Your task to perform on an android device: show emergency info Image 0: 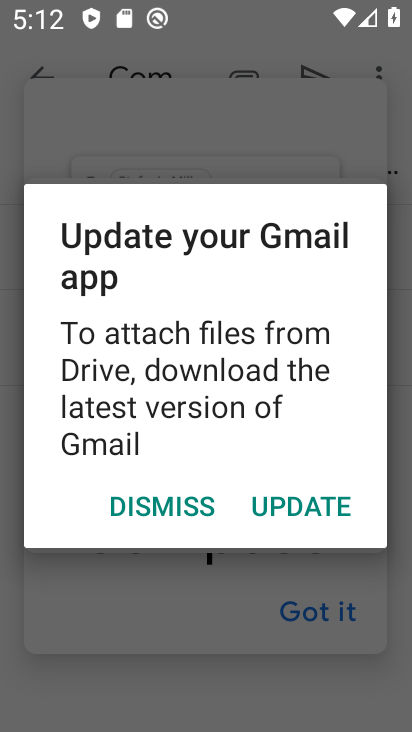
Step 0: press back button
Your task to perform on an android device: show emergency info Image 1: 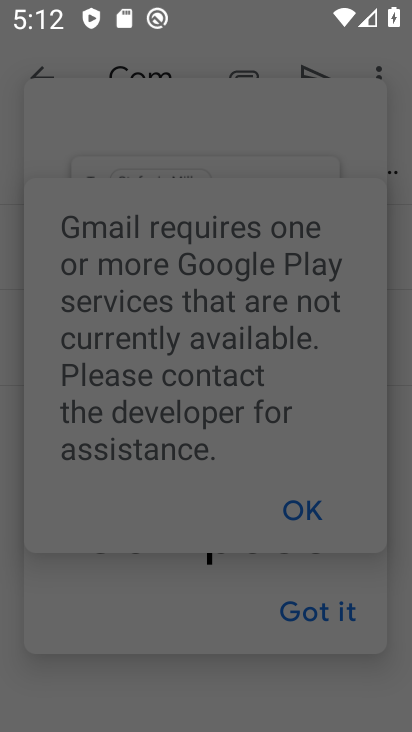
Step 1: press home button
Your task to perform on an android device: show emergency info Image 2: 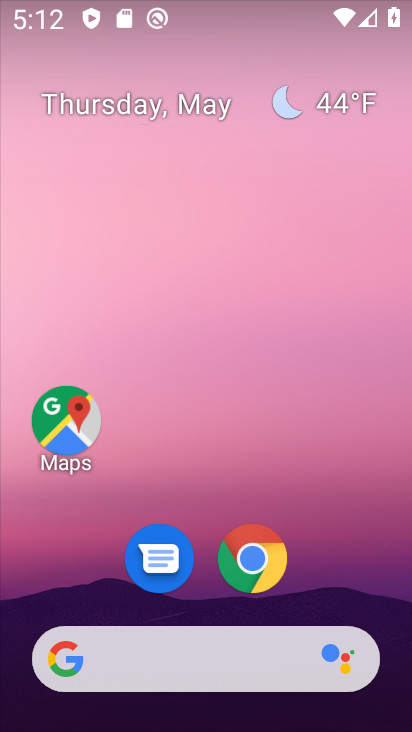
Step 2: drag from (307, 522) to (215, 1)
Your task to perform on an android device: show emergency info Image 3: 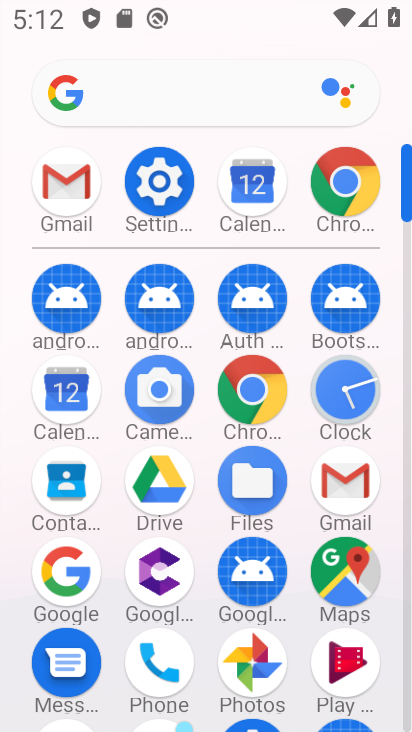
Step 3: click (161, 171)
Your task to perform on an android device: show emergency info Image 4: 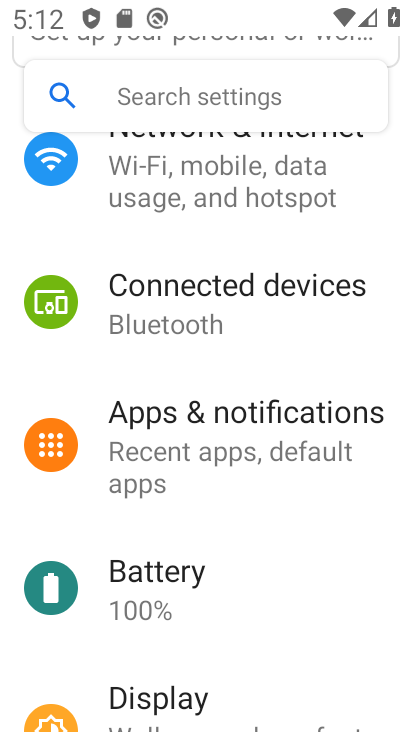
Step 4: drag from (174, 571) to (194, 139)
Your task to perform on an android device: show emergency info Image 5: 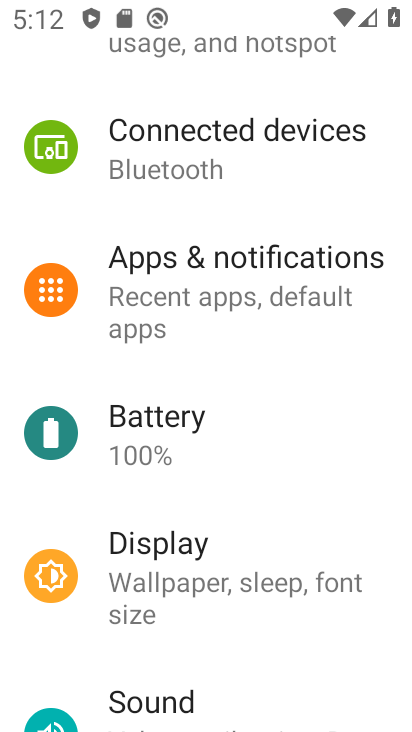
Step 5: drag from (224, 521) to (228, 239)
Your task to perform on an android device: show emergency info Image 6: 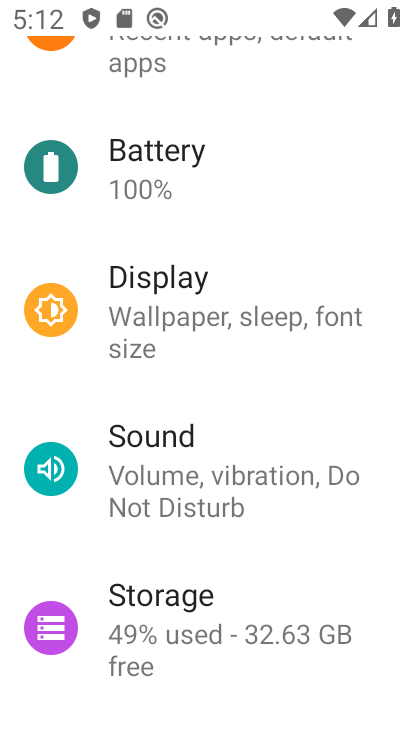
Step 6: drag from (227, 564) to (306, 52)
Your task to perform on an android device: show emergency info Image 7: 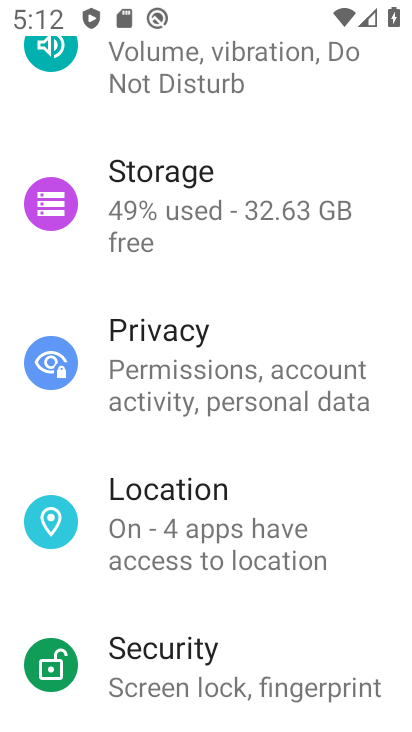
Step 7: drag from (228, 530) to (235, 67)
Your task to perform on an android device: show emergency info Image 8: 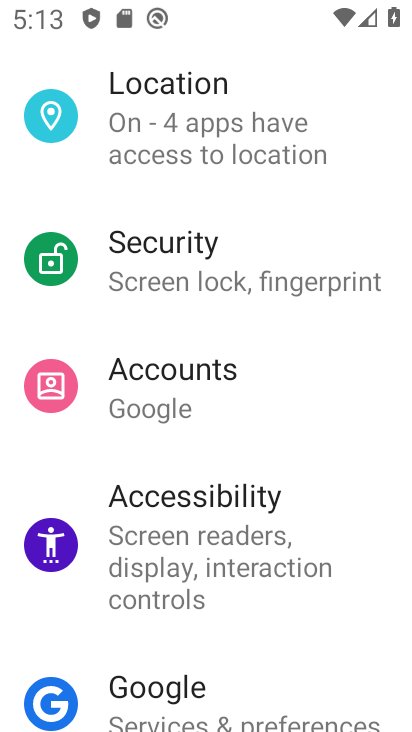
Step 8: drag from (266, 547) to (286, 132)
Your task to perform on an android device: show emergency info Image 9: 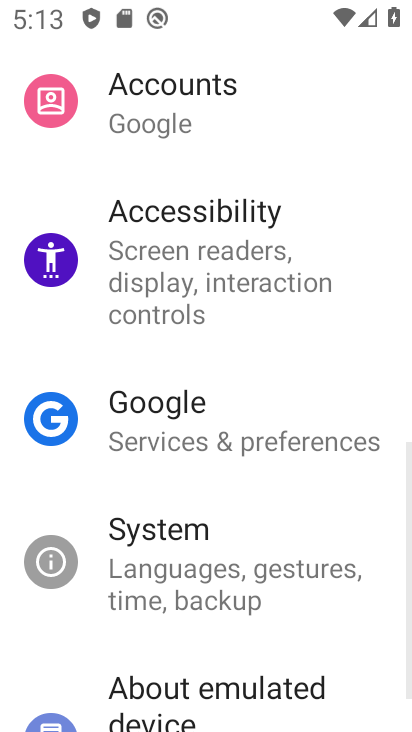
Step 9: drag from (288, 483) to (298, 110)
Your task to perform on an android device: show emergency info Image 10: 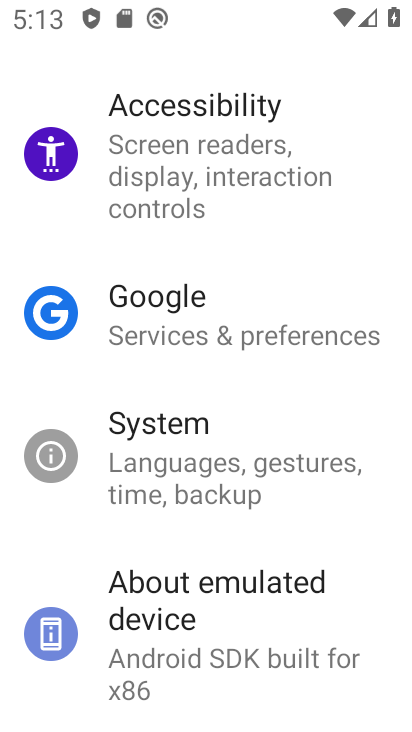
Step 10: drag from (294, 611) to (287, 148)
Your task to perform on an android device: show emergency info Image 11: 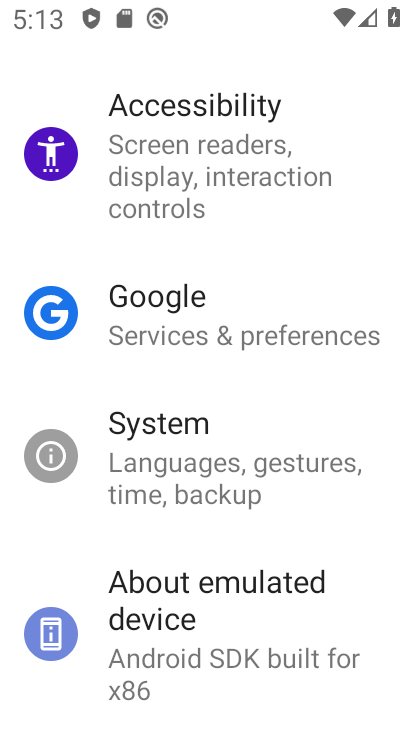
Step 11: drag from (274, 156) to (298, 609)
Your task to perform on an android device: show emergency info Image 12: 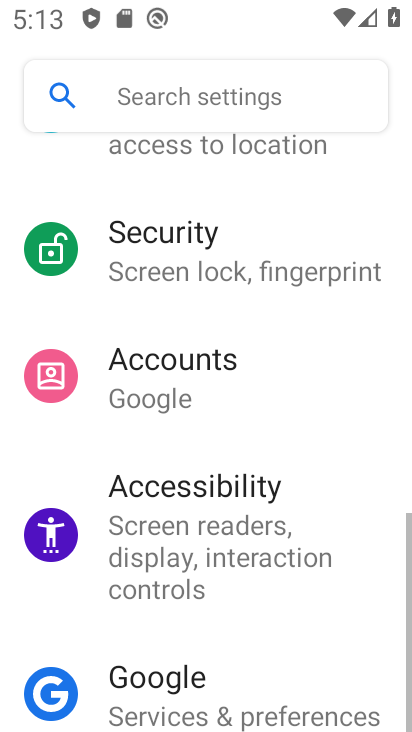
Step 12: drag from (298, 609) to (311, 109)
Your task to perform on an android device: show emergency info Image 13: 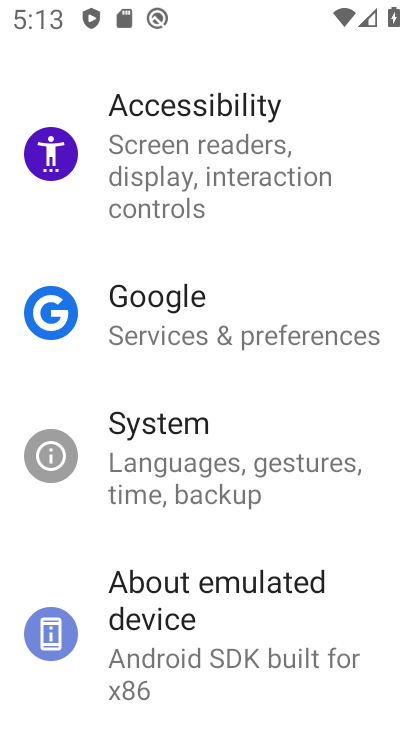
Step 13: drag from (305, 208) to (298, 353)
Your task to perform on an android device: show emergency info Image 14: 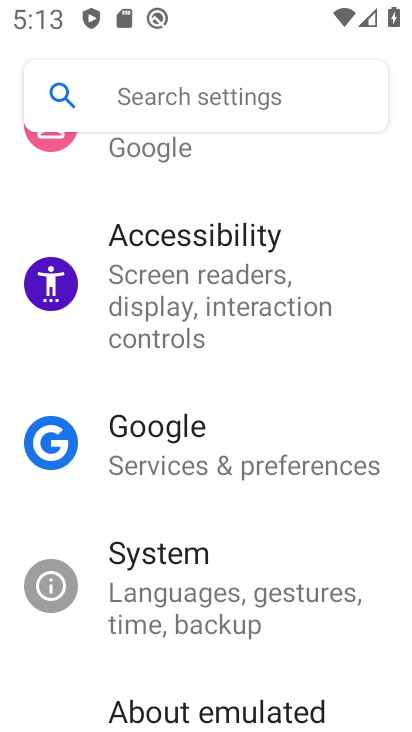
Step 14: drag from (302, 507) to (308, 64)
Your task to perform on an android device: show emergency info Image 15: 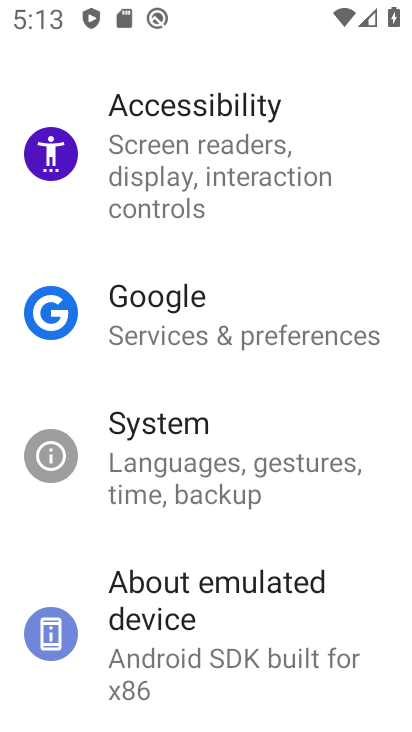
Step 15: click (181, 609)
Your task to perform on an android device: show emergency info Image 16: 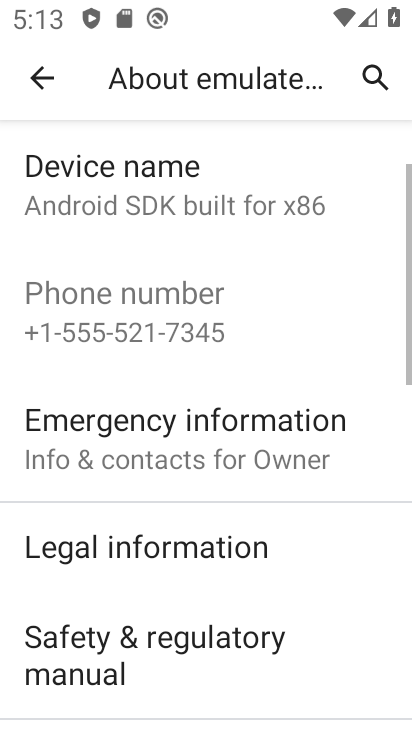
Step 16: drag from (245, 572) to (271, 228)
Your task to perform on an android device: show emergency info Image 17: 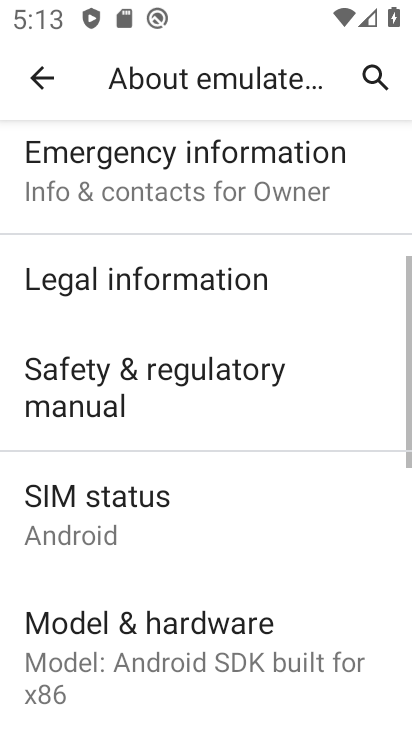
Step 17: click (201, 160)
Your task to perform on an android device: show emergency info Image 18: 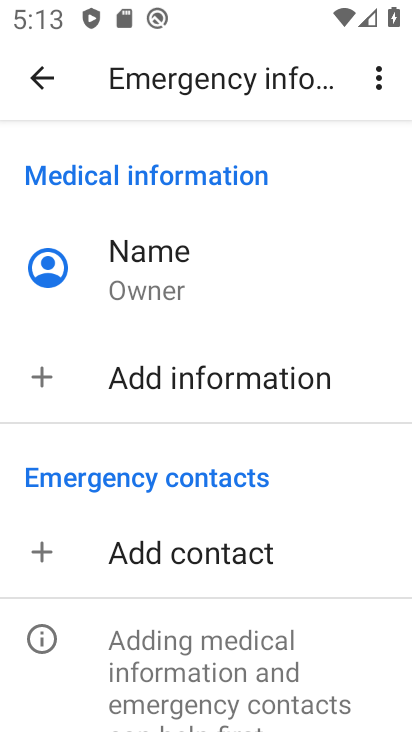
Step 18: task complete